Your task to perform on an android device: Go to Google maps Image 0: 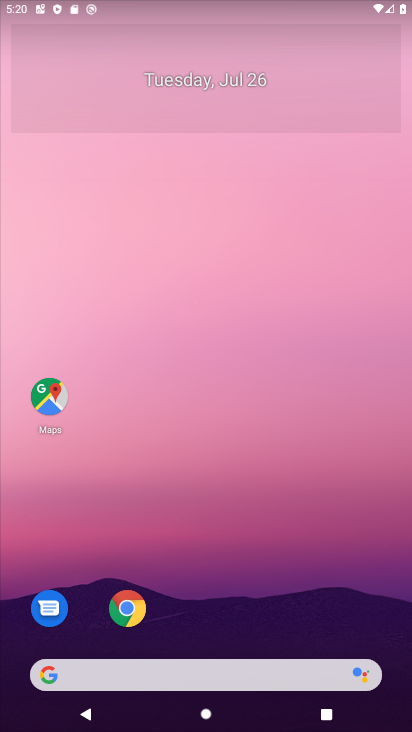
Step 0: press home button
Your task to perform on an android device: Go to Google maps Image 1: 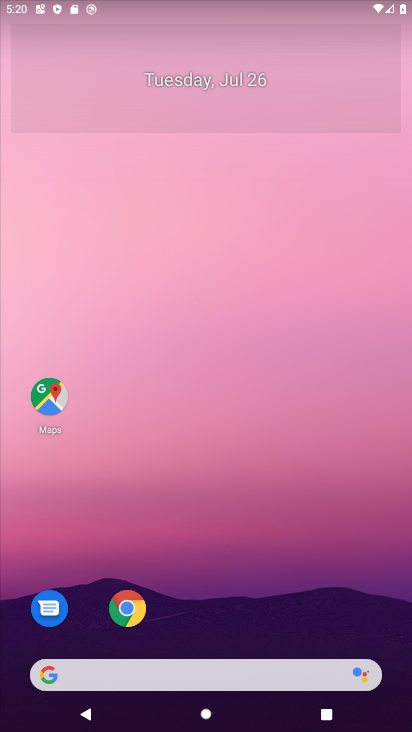
Step 1: drag from (250, 637) to (258, 118)
Your task to perform on an android device: Go to Google maps Image 2: 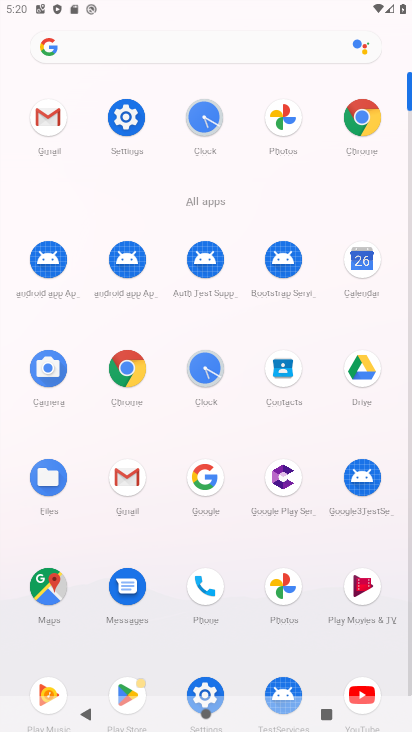
Step 2: click (58, 584)
Your task to perform on an android device: Go to Google maps Image 3: 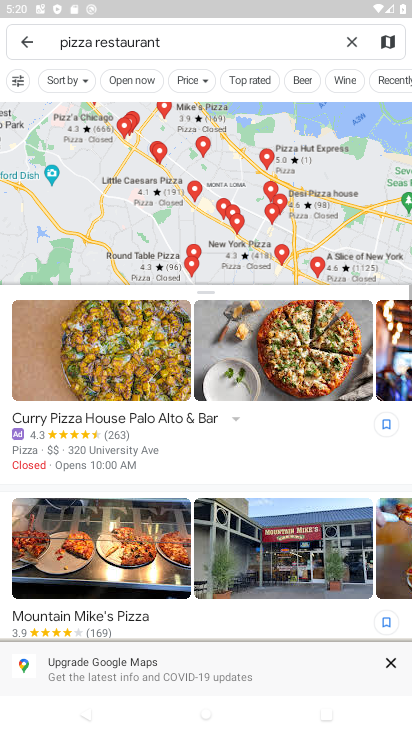
Step 3: click (27, 41)
Your task to perform on an android device: Go to Google maps Image 4: 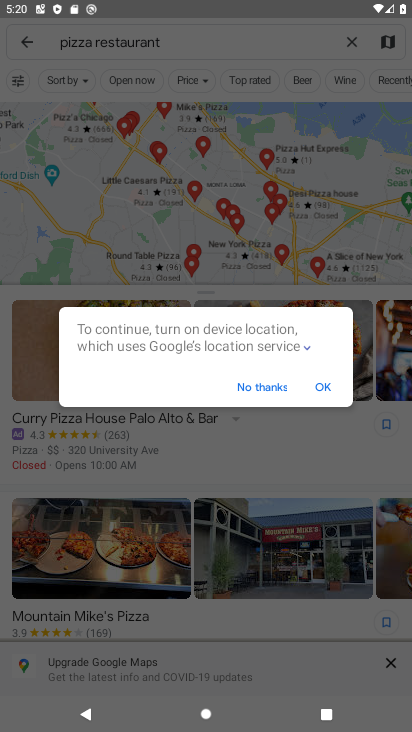
Step 4: click (330, 386)
Your task to perform on an android device: Go to Google maps Image 5: 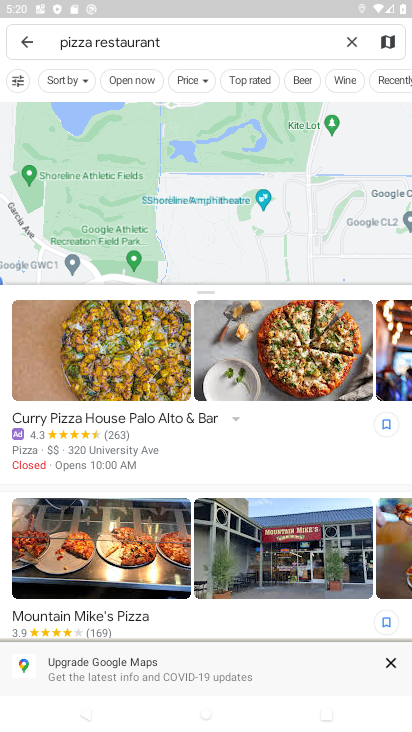
Step 5: click (24, 39)
Your task to perform on an android device: Go to Google maps Image 6: 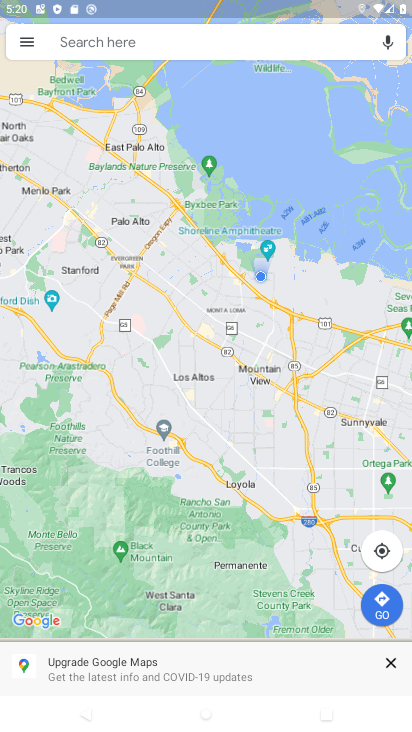
Step 6: task complete